Your task to perform on an android device: What's on my calendar today? Image 0: 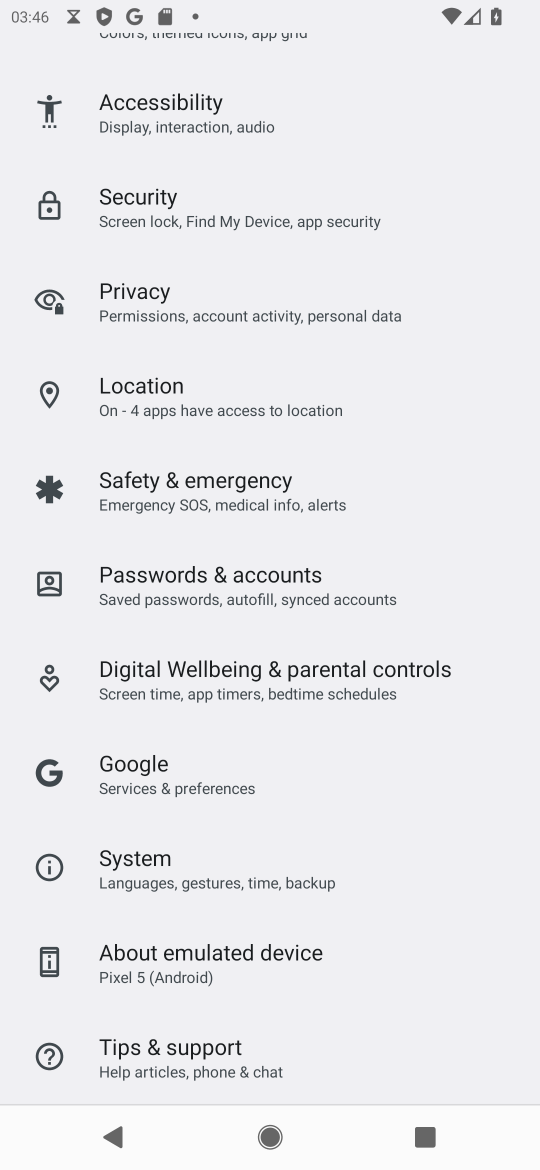
Step 0: press home button
Your task to perform on an android device: What's on my calendar today? Image 1: 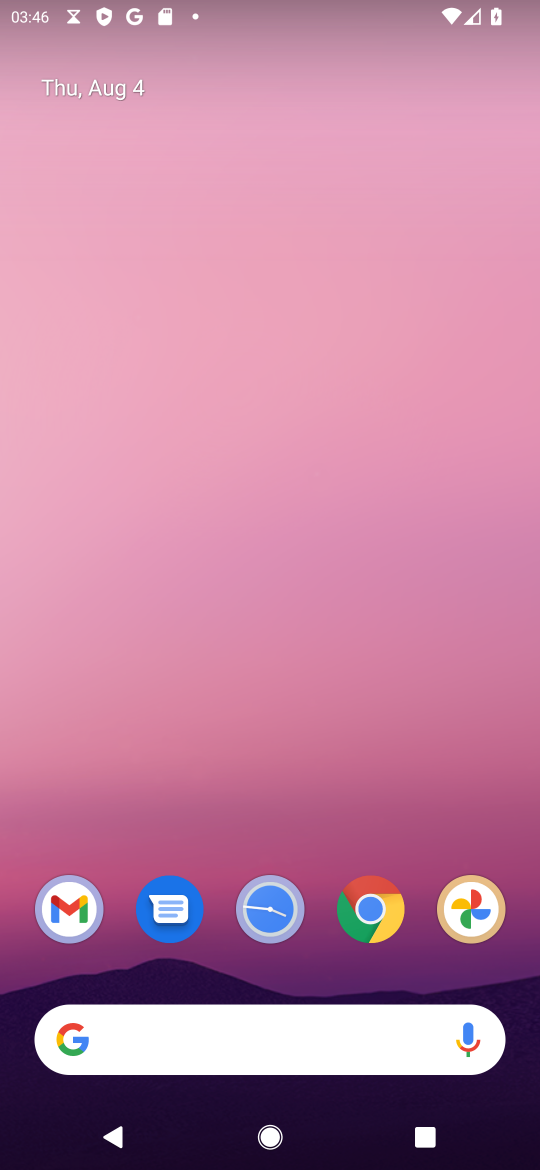
Step 1: drag from (188, 1024) to (413, 397)
Your task to perform on an android device: What's on my calendar today? Image 2: 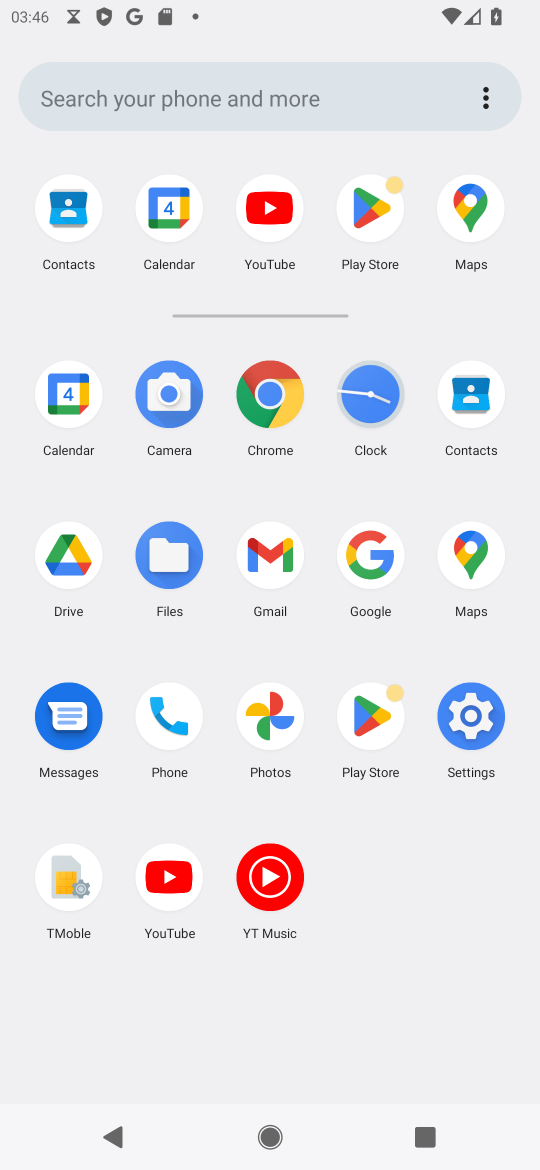
Step 2: click (170, 212)
Your task to perform on an android device: What's on my calendar today? Image 3: 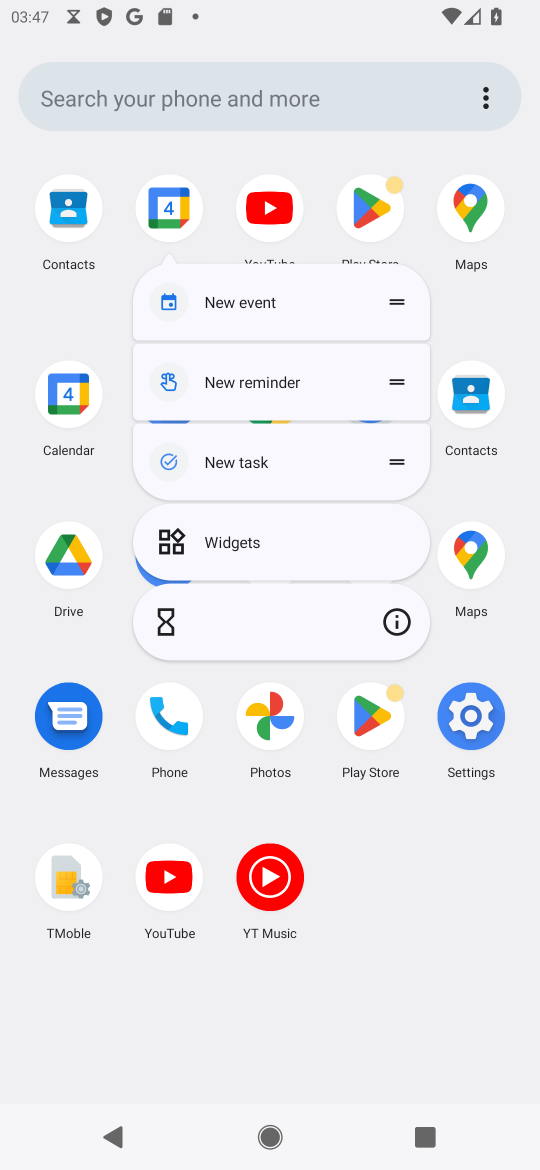
Step 3: click (170, 214)
Your task to perform on an android device: What's on my calendar today? Image 4: 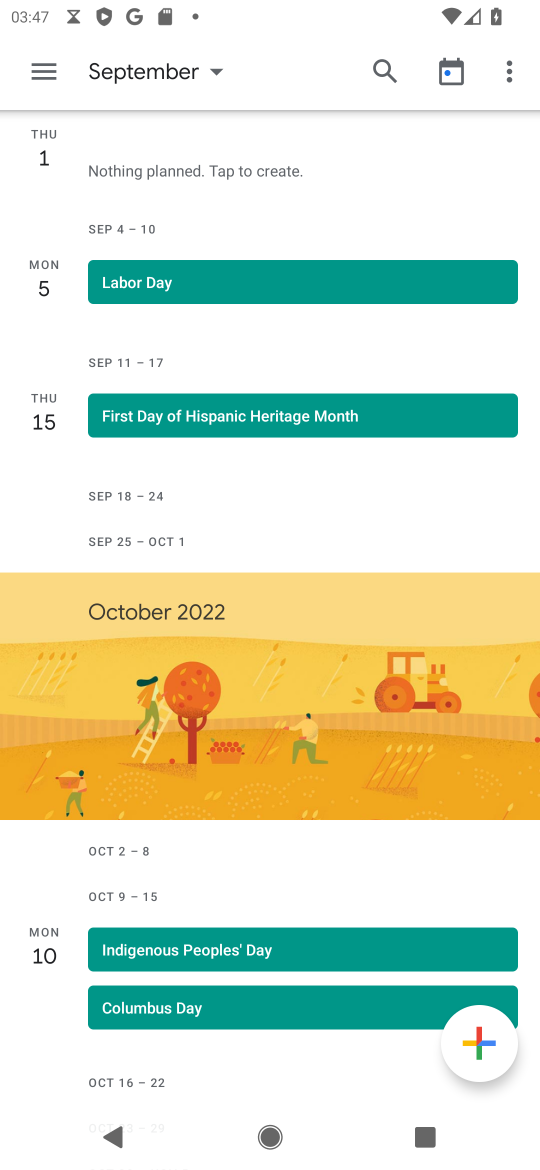
Step 4: click (157, 59)
Your task to perform on an android device: What's on my calendar today? Image 5: 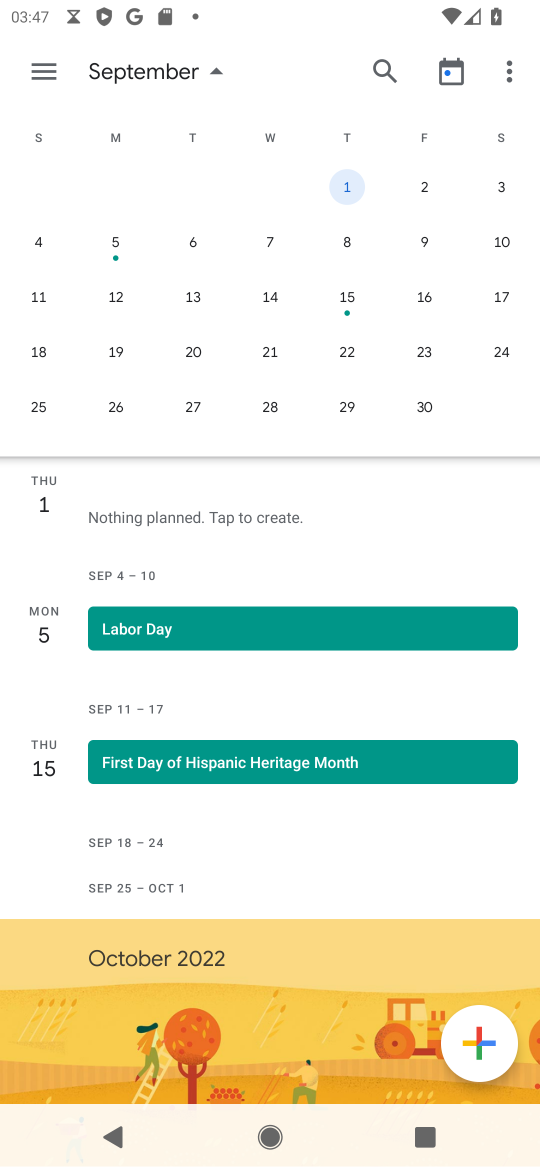
Step 5: drag from (81, 258) to (538, 441)
Your task to perform on an android device: What's on my calendar today? Image 6: 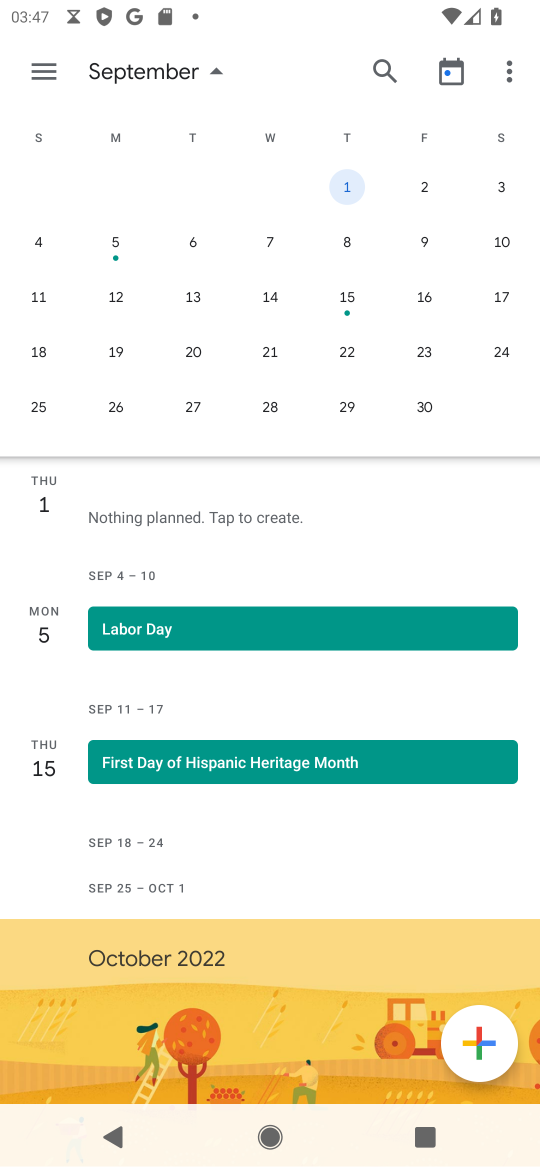
Step 6: drag from (167, 310) to (358, 331)
Your task to perform on an android device: What's on my calendar today? Image 7: 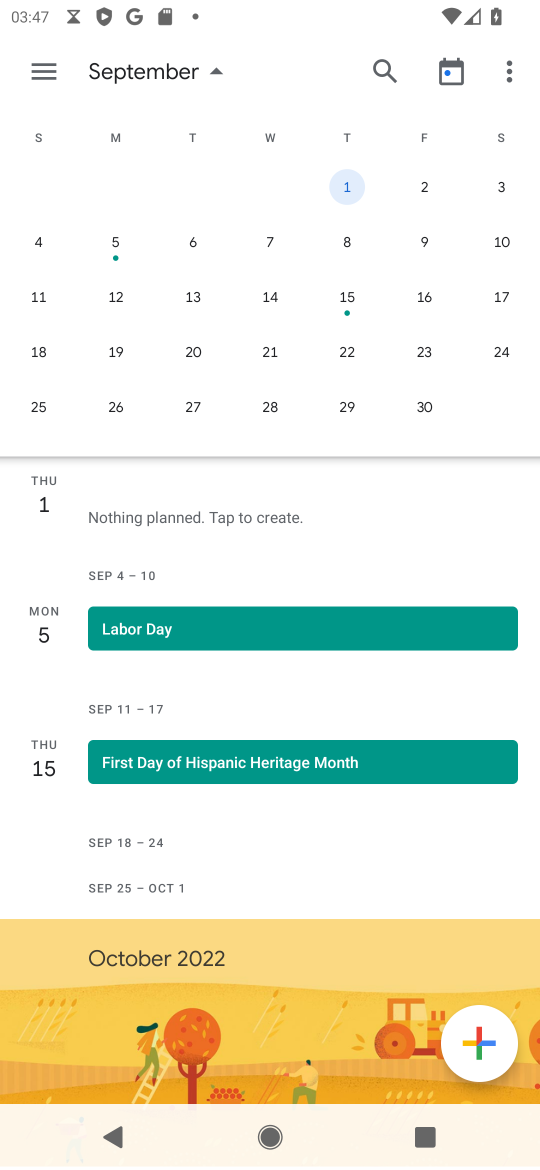
Step 7: drag from (119, 248) to (426, 307)
Your task to perform on an android device: What's on my calendar today? Image 8: 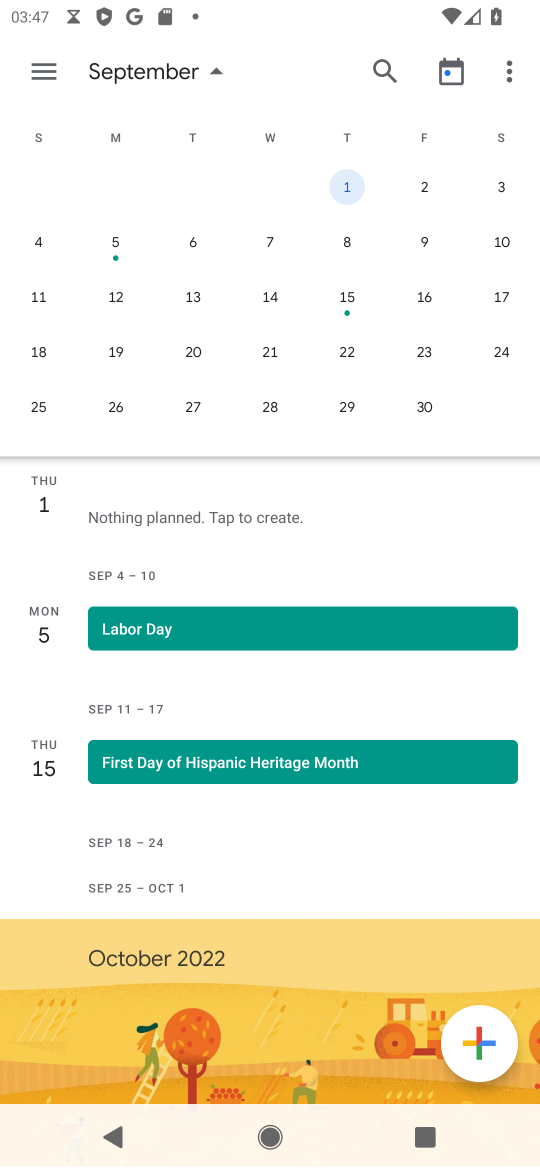
Step 8: drag from (141, 239) to (537, 352)
Your task to perform on an android device: What's on my calendar today? Image 9: 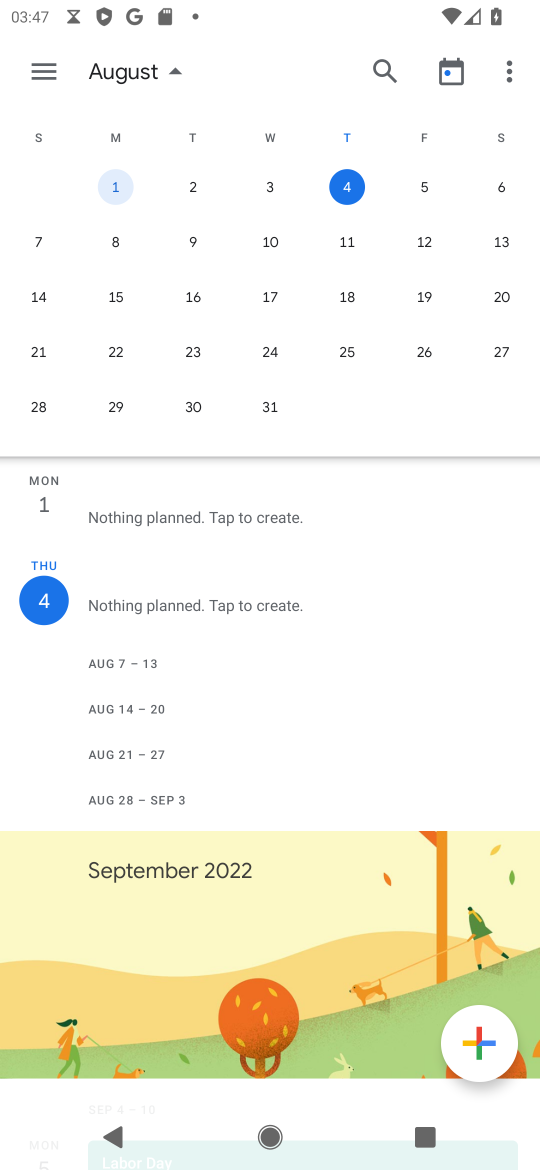
Step 9: click (348, 190)
Your task to perform on an android device: What's on my calendar today? Image 10: 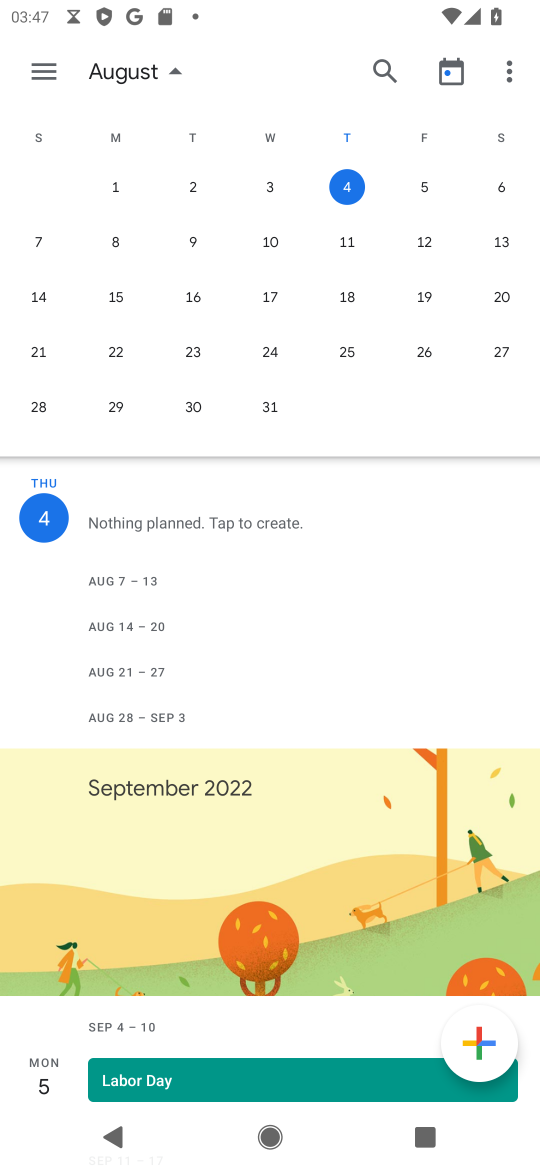
Step 10: click (47, 69)
Your task to perform on an android device: What's on my calendar today? Image 11: 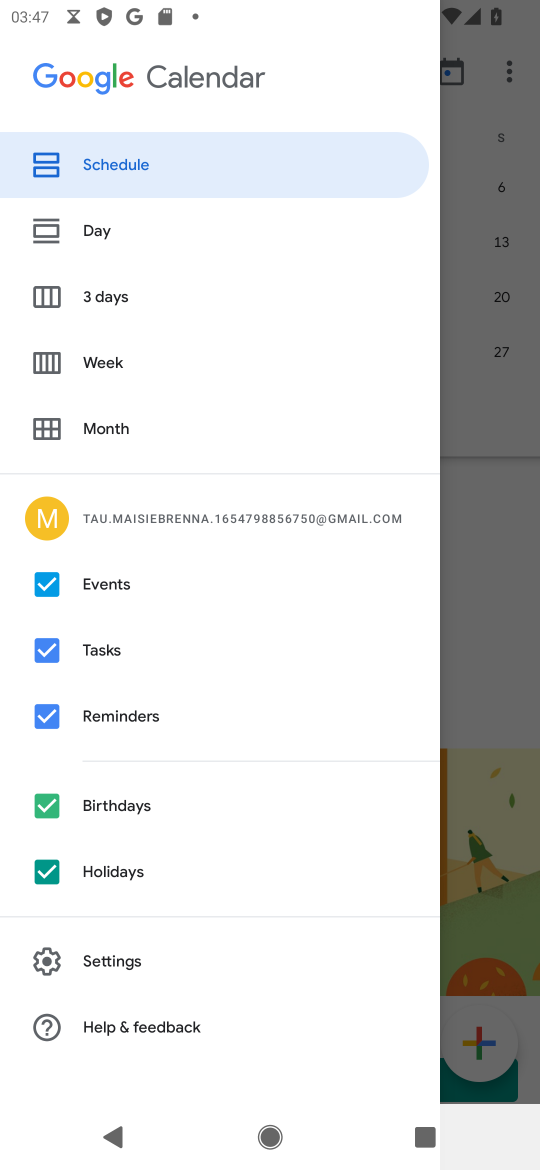
Step 11: click (87, 234)
Your task to perform on an android device: What's on my calendar today? Image 12: 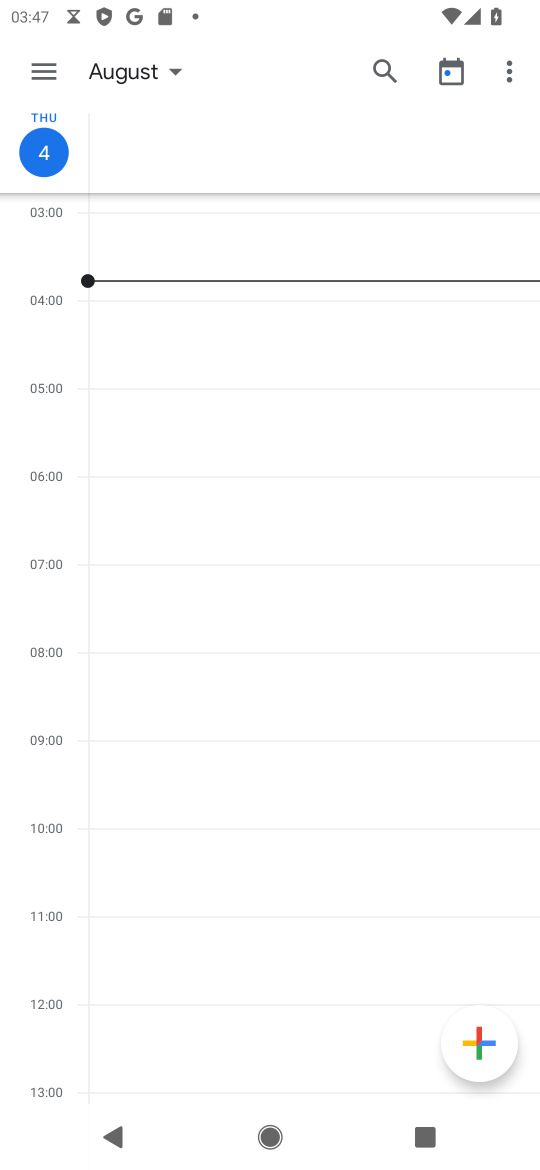
Step 12: click (42, 66)
Your task to perform on an android device: What's on my calendar today? Image 13: 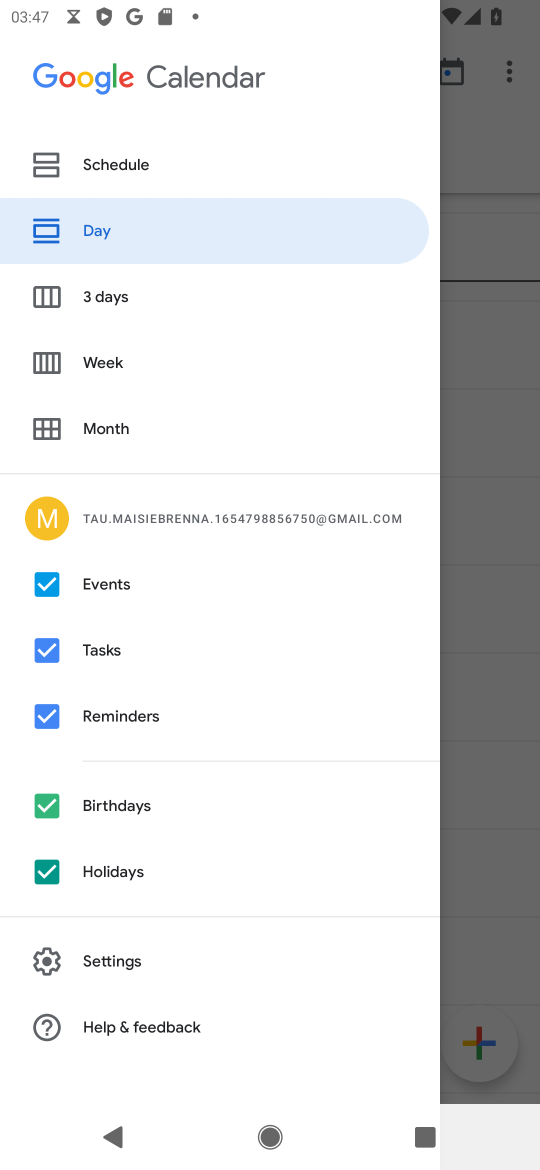
Step 13: click (202, 154)
Your task to perform on an android device: What's on my calendar today? Image 14: 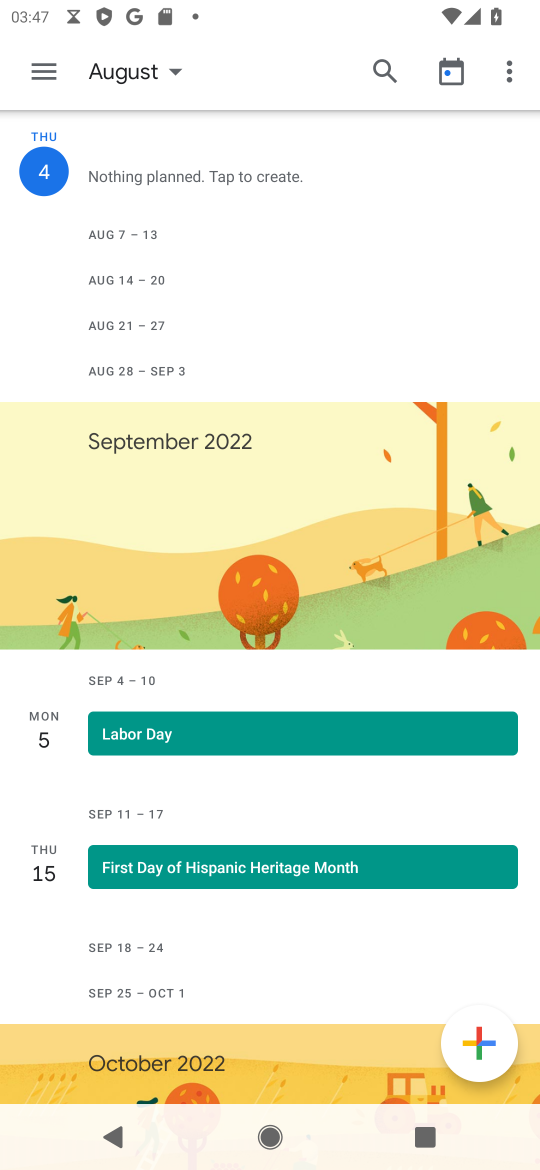
Step 14: task complete